Your task to perform on an android device: Open settings on Google Maps Image 0: 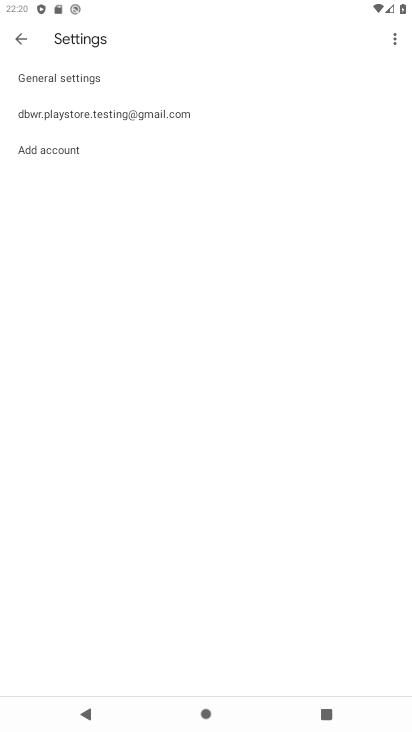
Step 0: press home button
Your task to perform on an android device: Open settings on Google Maps Image 1: 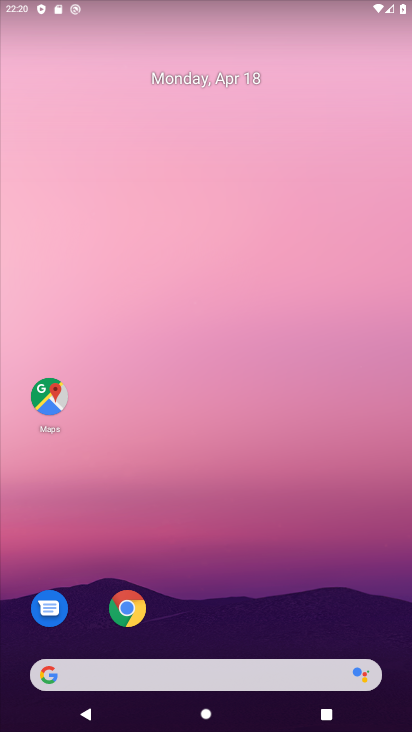
Step 1: click (48, 397)
Your task to perform on an android device: Open settings on Google Maps Image 2: 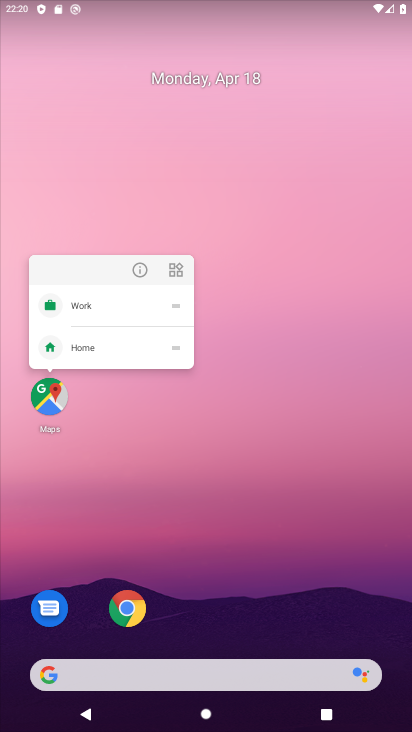
Step 2: click (48, 397)
Your task to perform on an android device: Open settings on Google Maps Image 3: 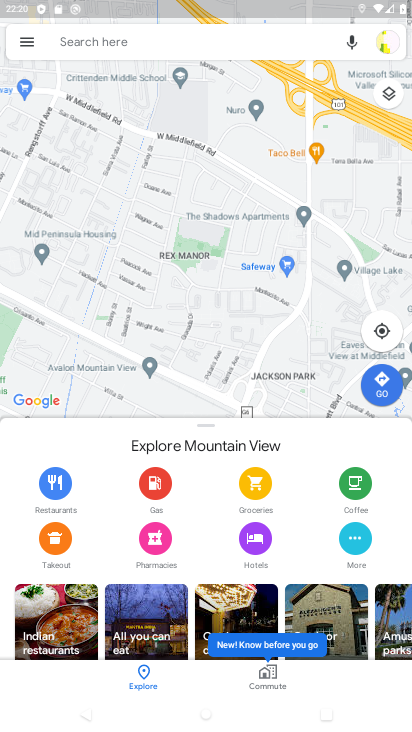
Step 3: click (30, 38)
Your task to perform on an android device: Open settings on Google Maps Image 4: 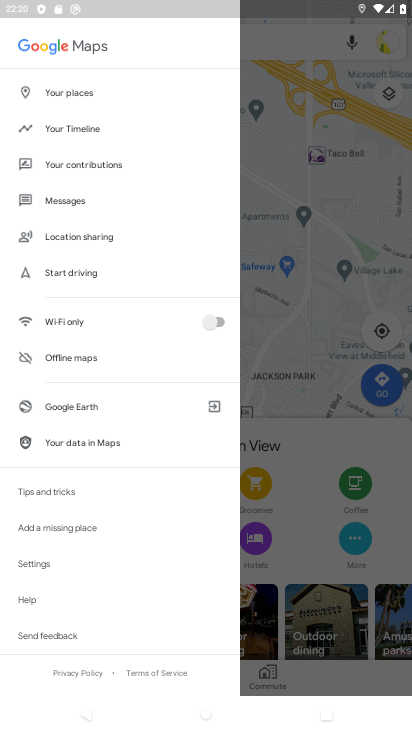
Step 4: click (65, 566)
Your task to perform on an android device: Open settings on Google Maps Image 5: 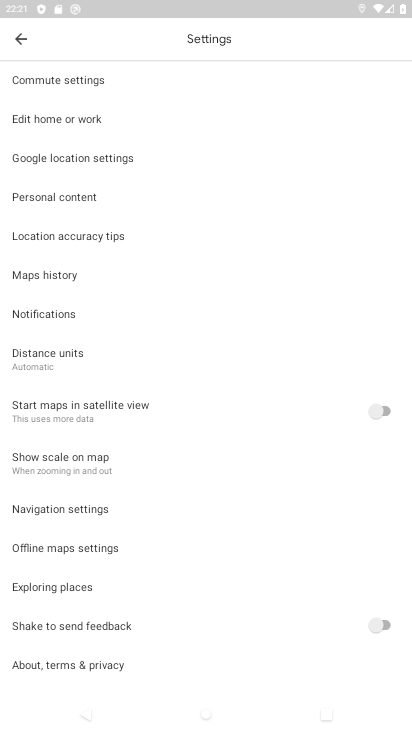
Step 5: task complete